Your task to perform on an android device: View the shopping cart on target.com. Add "panasonic triple a" to the cart on target.com, then select checkout. Image 0: 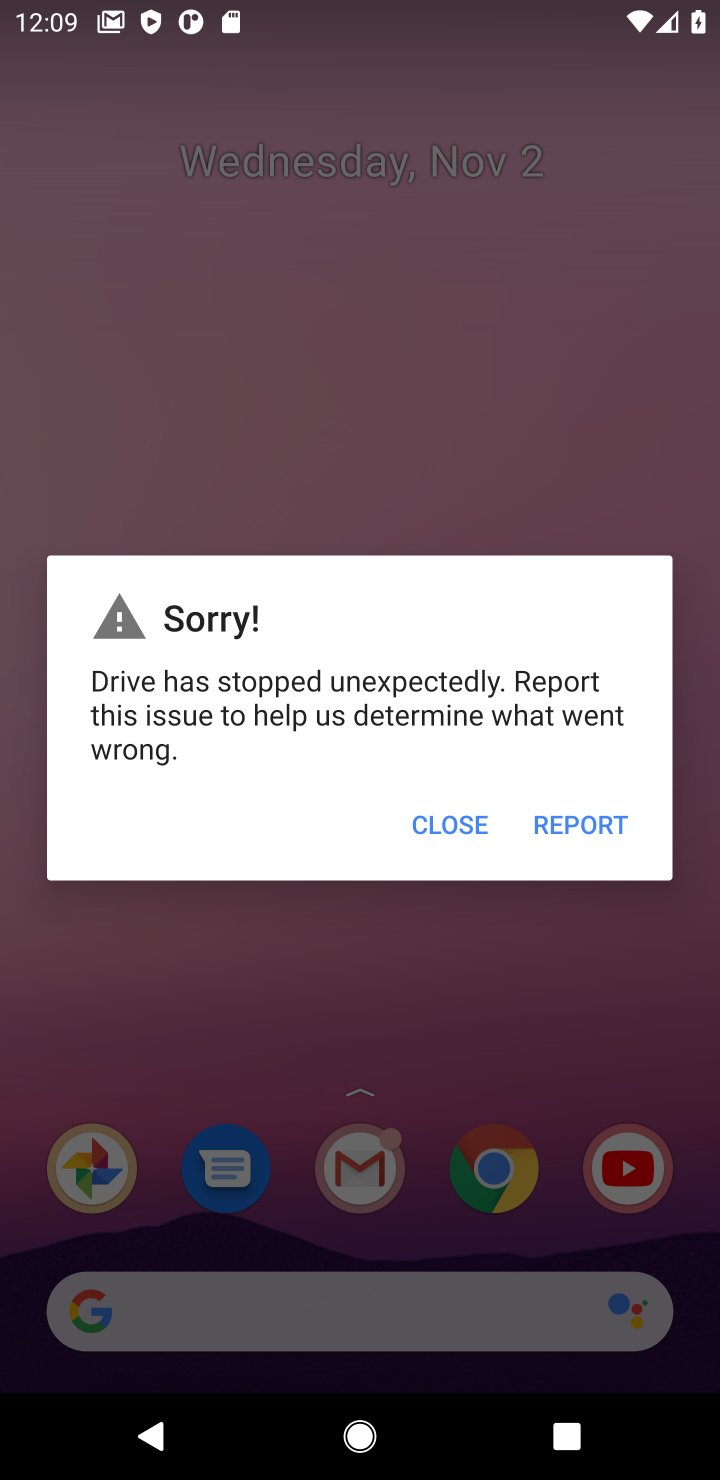
Step 0: press home button
Your task to perform on an android device: View the shopping cart on target.com. Add "panasonic triple a" to the cart on target.com, then select checkout. Image 1: 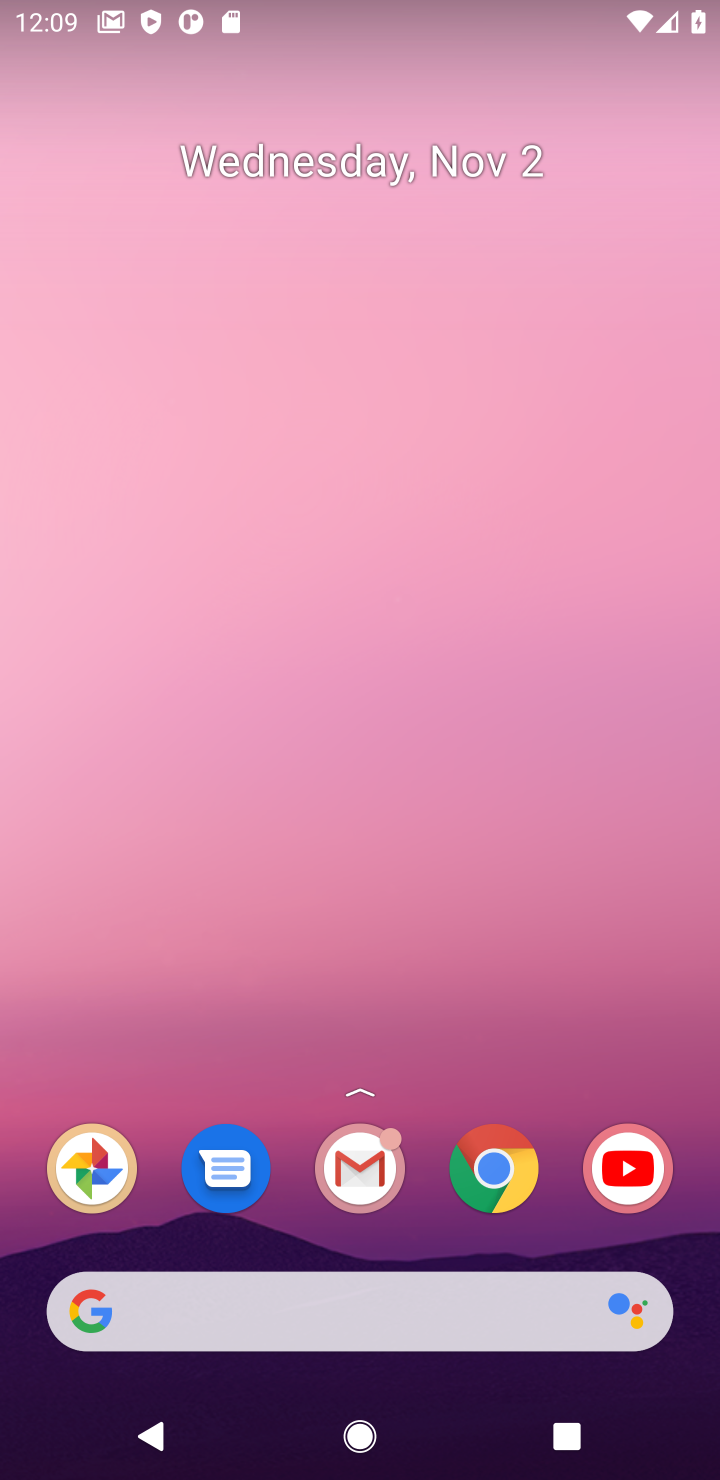
Step 1: click (505, 1187)
Your task to perform on an android device: View the shopping cart on target.com. Add "panasonic triple a" to the cart on target.com, then select checkout. Image 2: 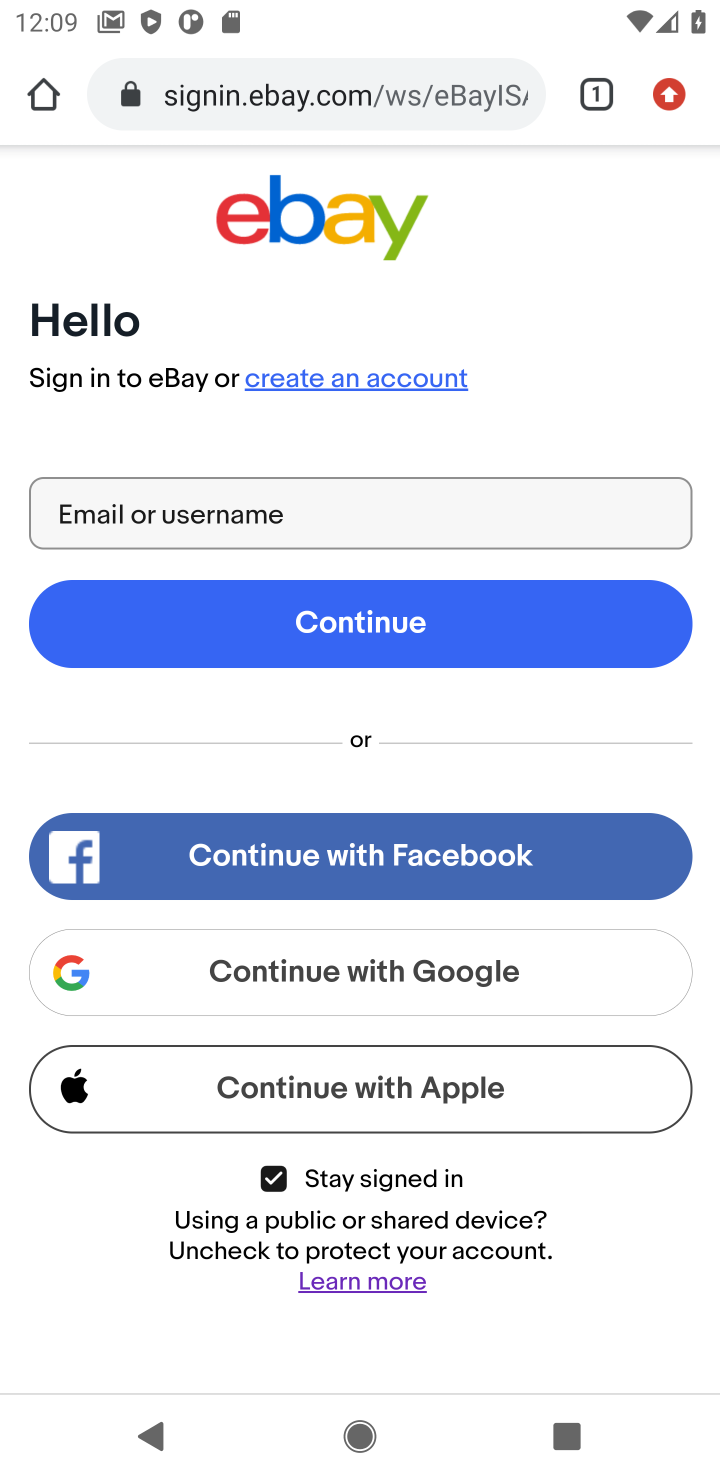
Step 2: click (322, 90)
Your task to perform on an android device: View the shopping cart on target.com. Add "panasonic triple a" to the cart on target.com, then select checkout. Image 3: 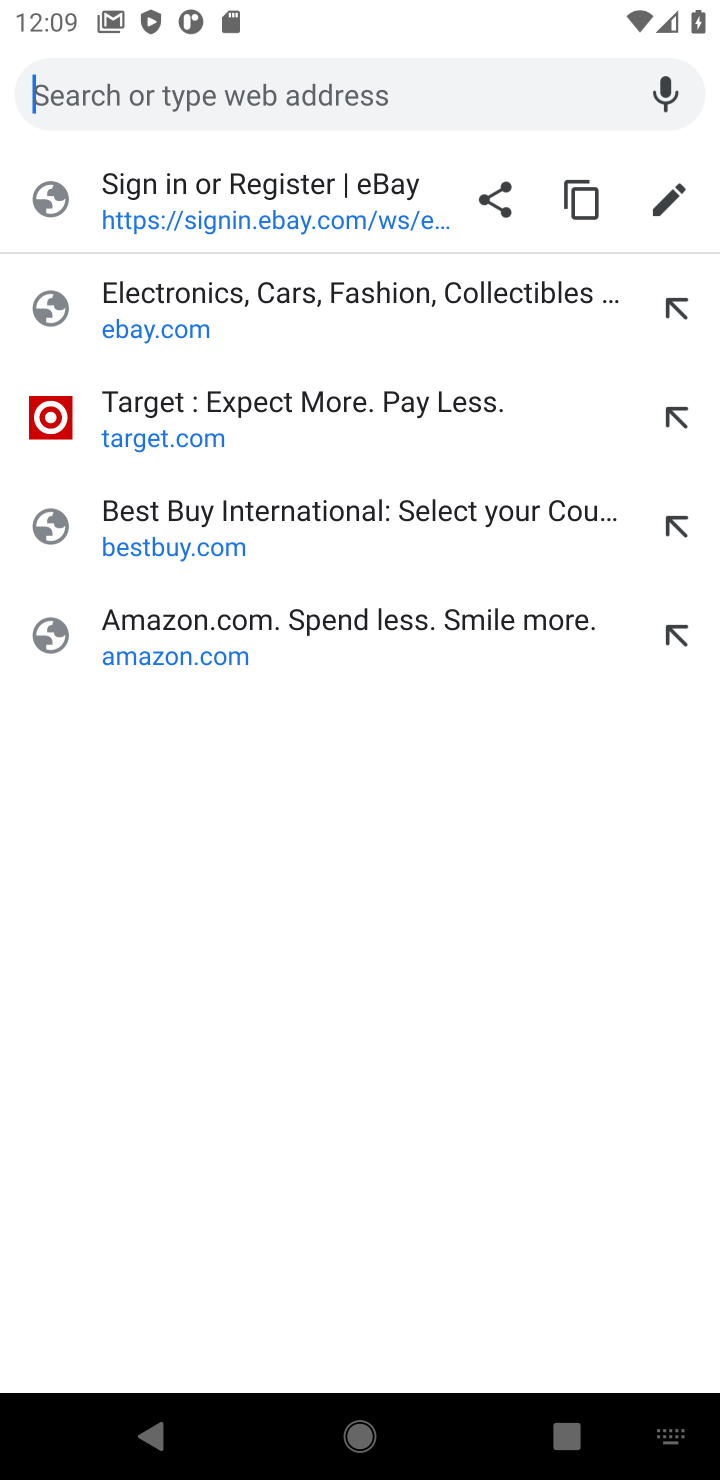
Step 3: type "target.com"
Your task to perform on an android device: View the shopping cart on target.com. Add "panasonic triple a" to the cart on target.com, then select checkout. Image 4: 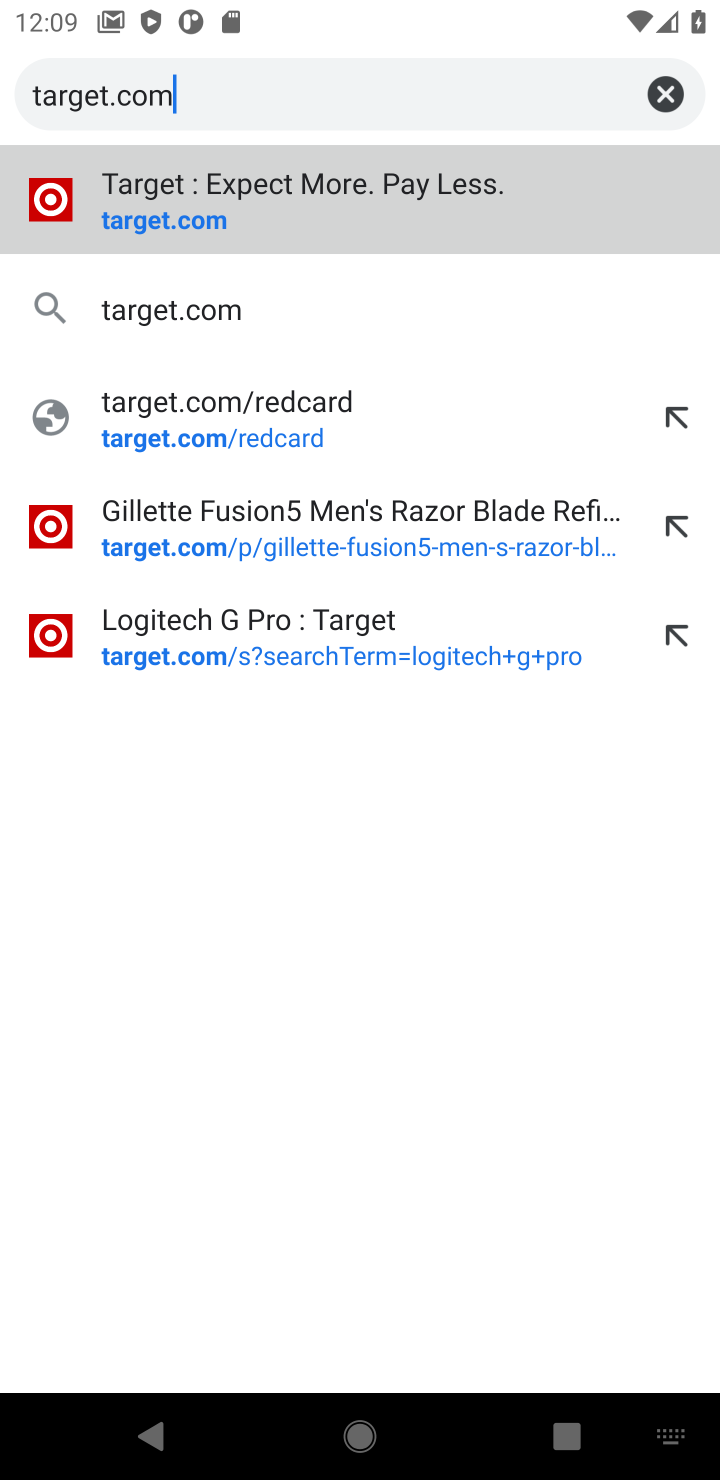
Step 4: click (247, 306)
Your task to perform on an android device: View the shopping cart on target.com. Add "panasonic triple a" to the cart on target.com, then select checkout. Image 5: 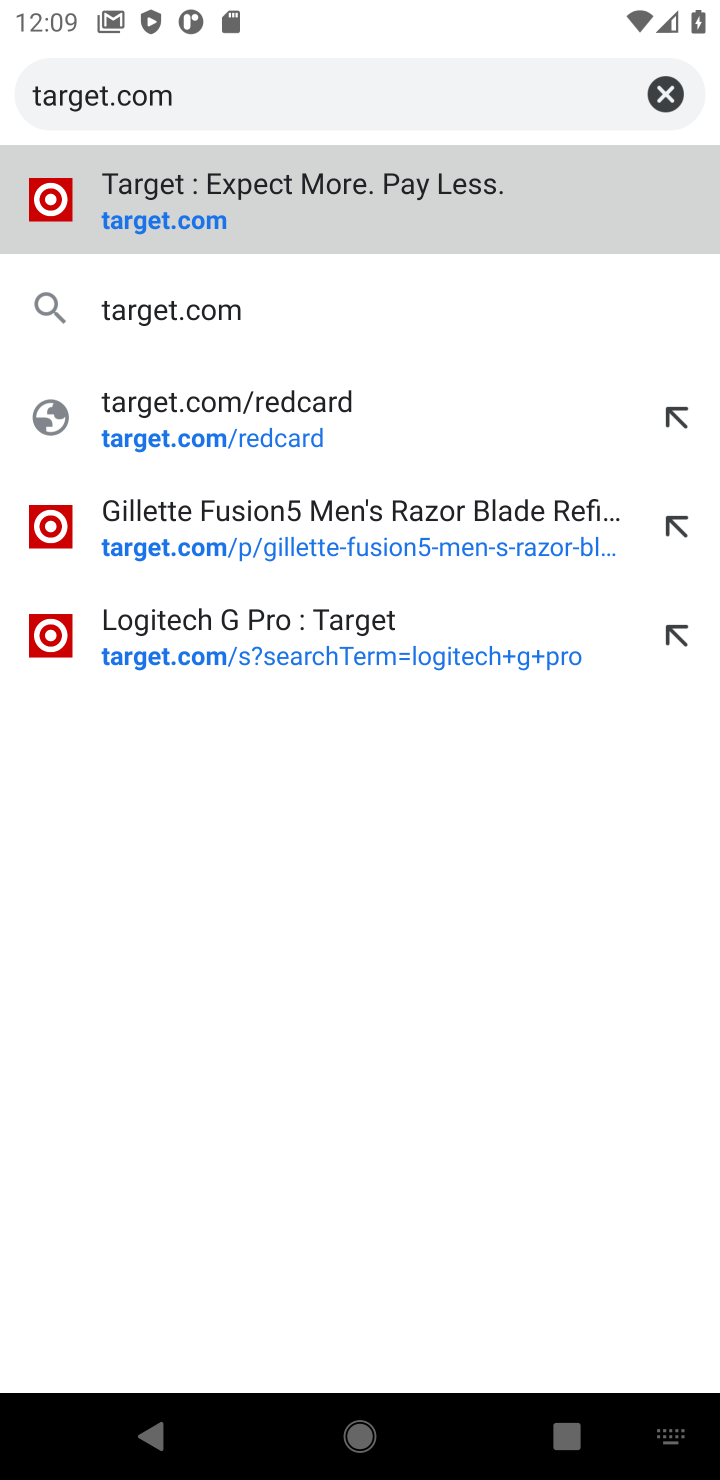
Step 5: click (196, 310)
Your task to perform on an android device: View the shopping cart on target.com. Add "panasonic triple a" to the cart on target.com, then select checkout. Image 6: 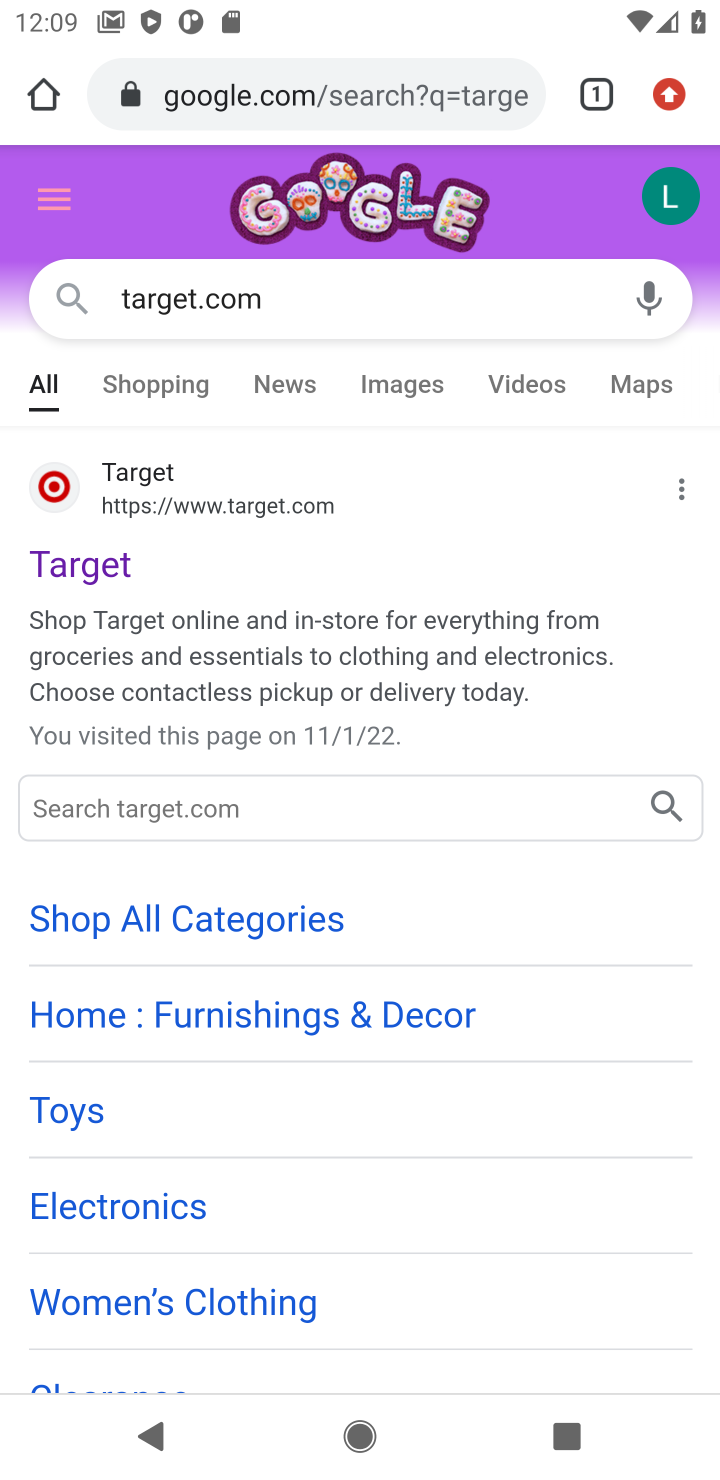
Step 6: click (178, 489)
Your task to perform on an android device: View the shopping cart on target.com. Add "panasonic triple a" to the cart on target.com, then select checkout. Image 7: 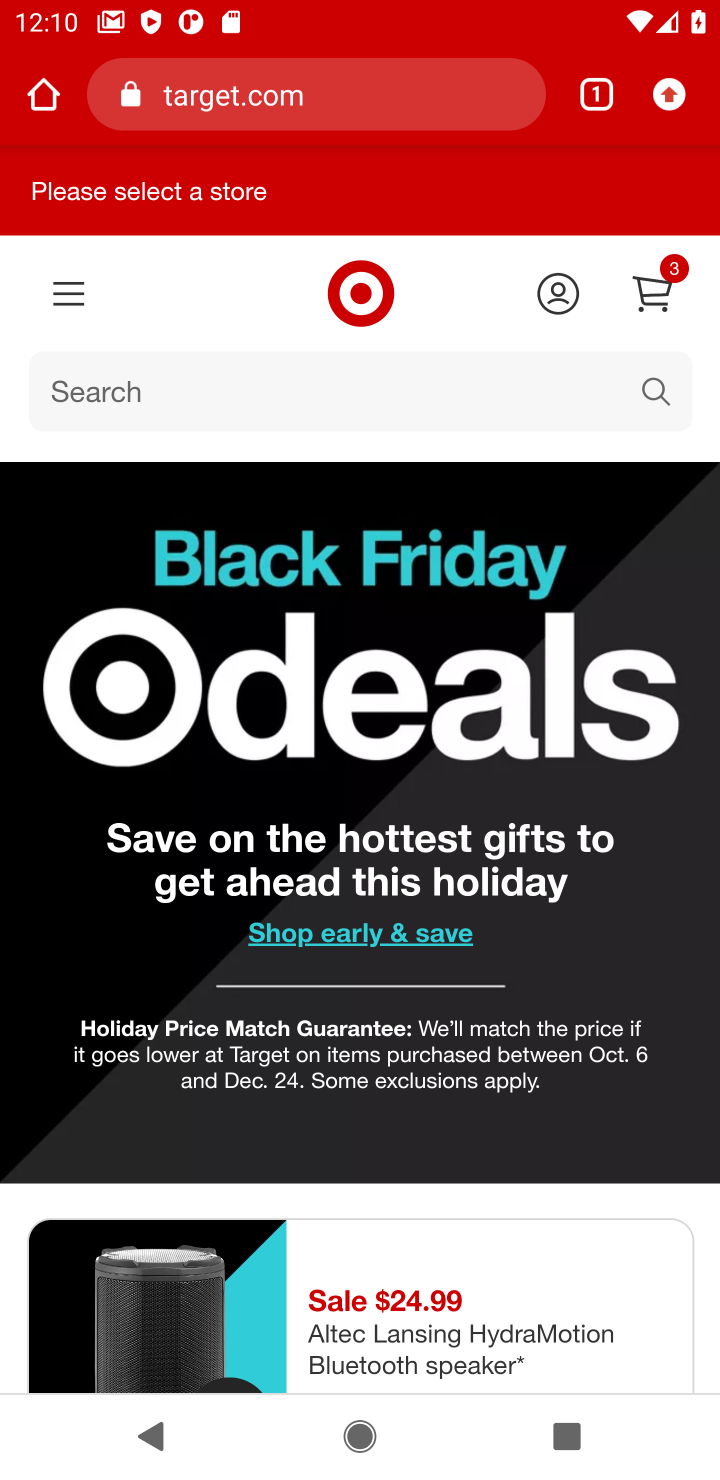
Step 7: click (245, 378)
Your task to perform on an android device: View the shopping cart on target.com. Add "panasonic triple a" to the cart on target.com, then select checkout. Image 8: 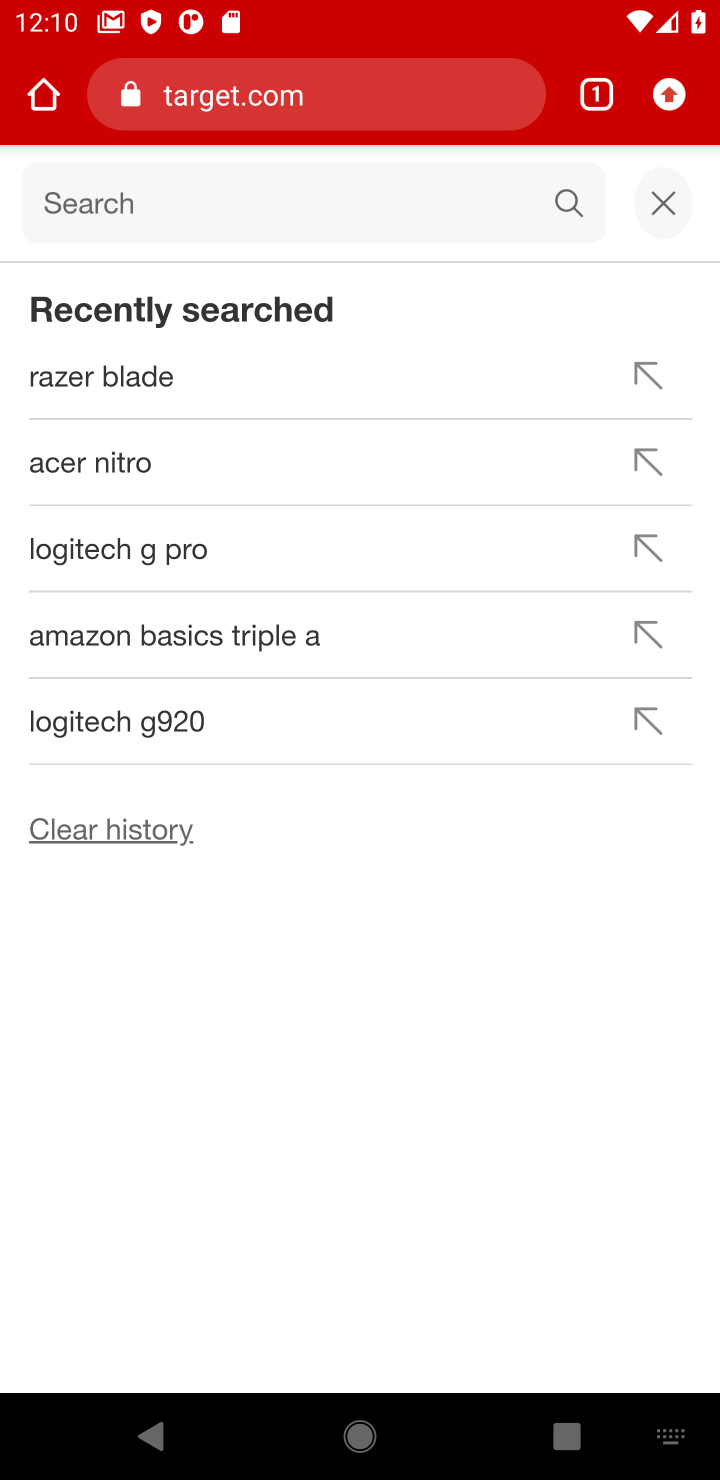
Step 8: type "panasonic triple a"
Your task to perform on an android device: View the shopping cart on target.com. Add "panasonic triple a" to the cart on target.com, then select checkout. Image 9: 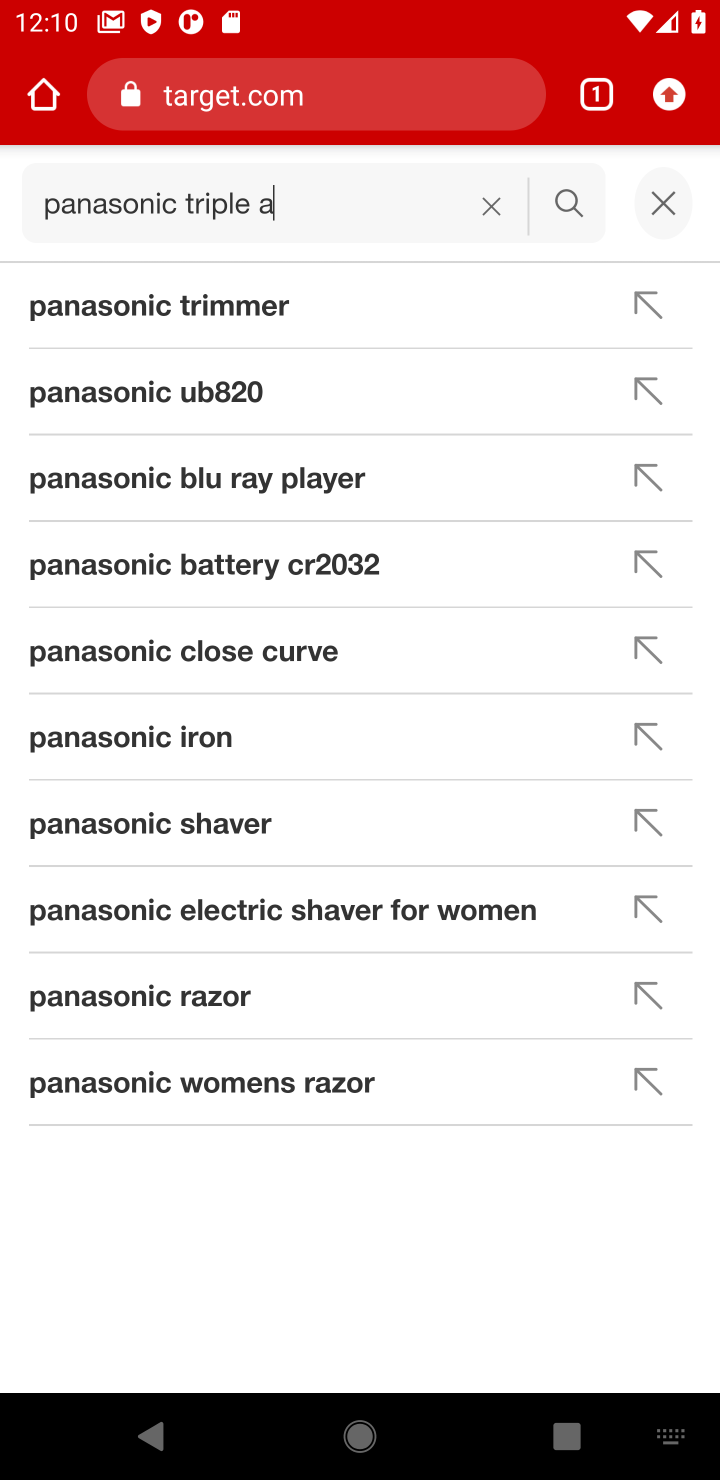
Step 9: click (382, 203)
Your task to perform on an android device: View the shopping cart on target.com. Add "panasonic triple a" to the cart on target.com, then select checkout. Image 10: 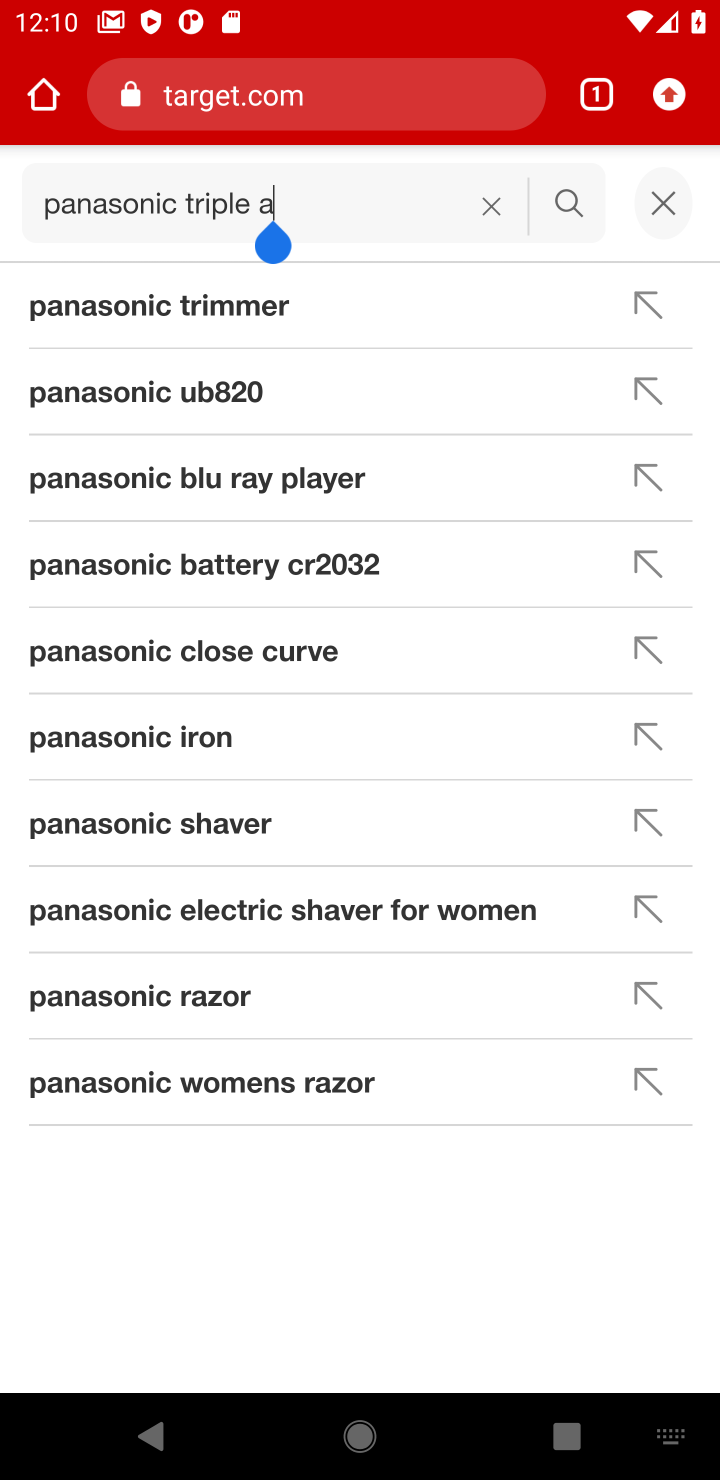
Step 10: click (487, 206)
Your task to perform on an android device: View the shopping cart on target.com. Add "panasonic triple a" to the cart on target.com, then select checkout. Image 11: 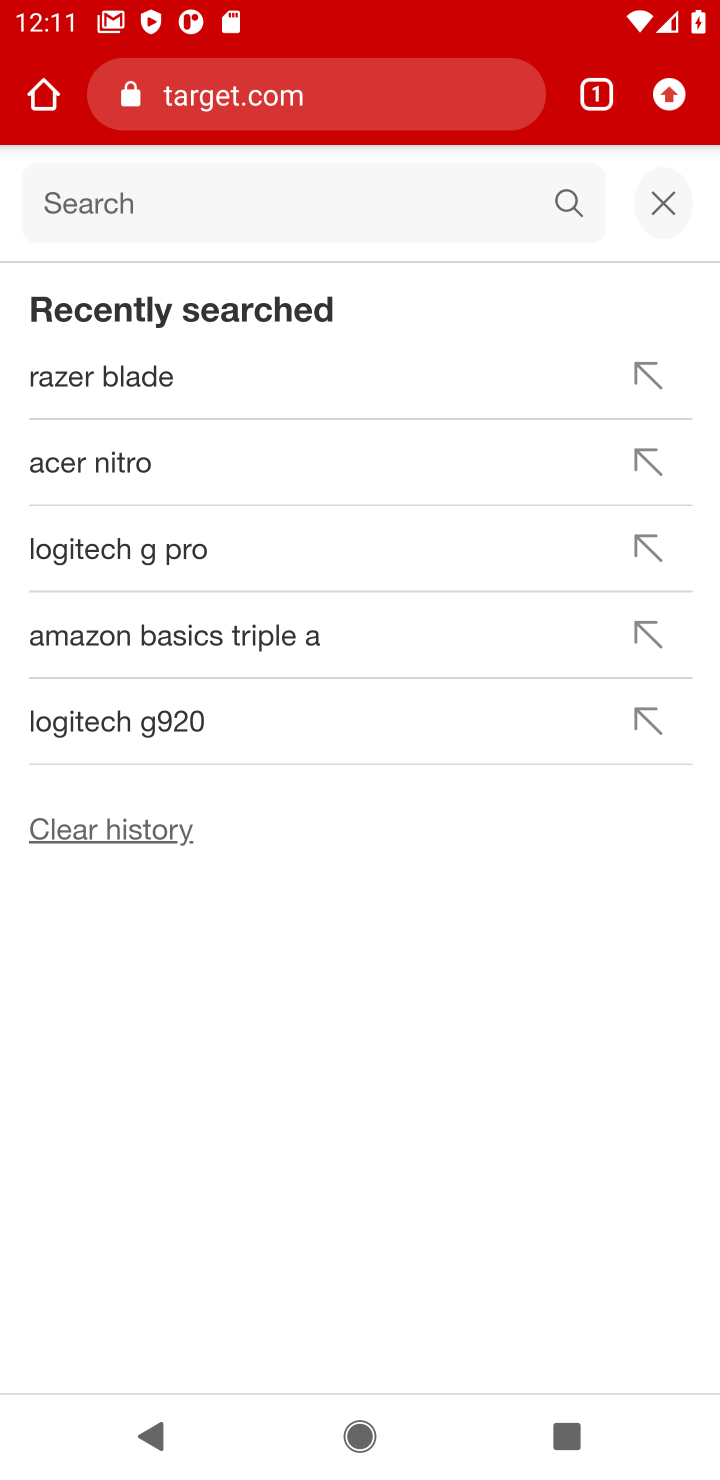
Step 11: type "panasonic triple "
Your task to perform on an android device: View the shopping cart on target.com. Add "panasonic triple a" to the cart on target.com, then select checkout. Image 12: 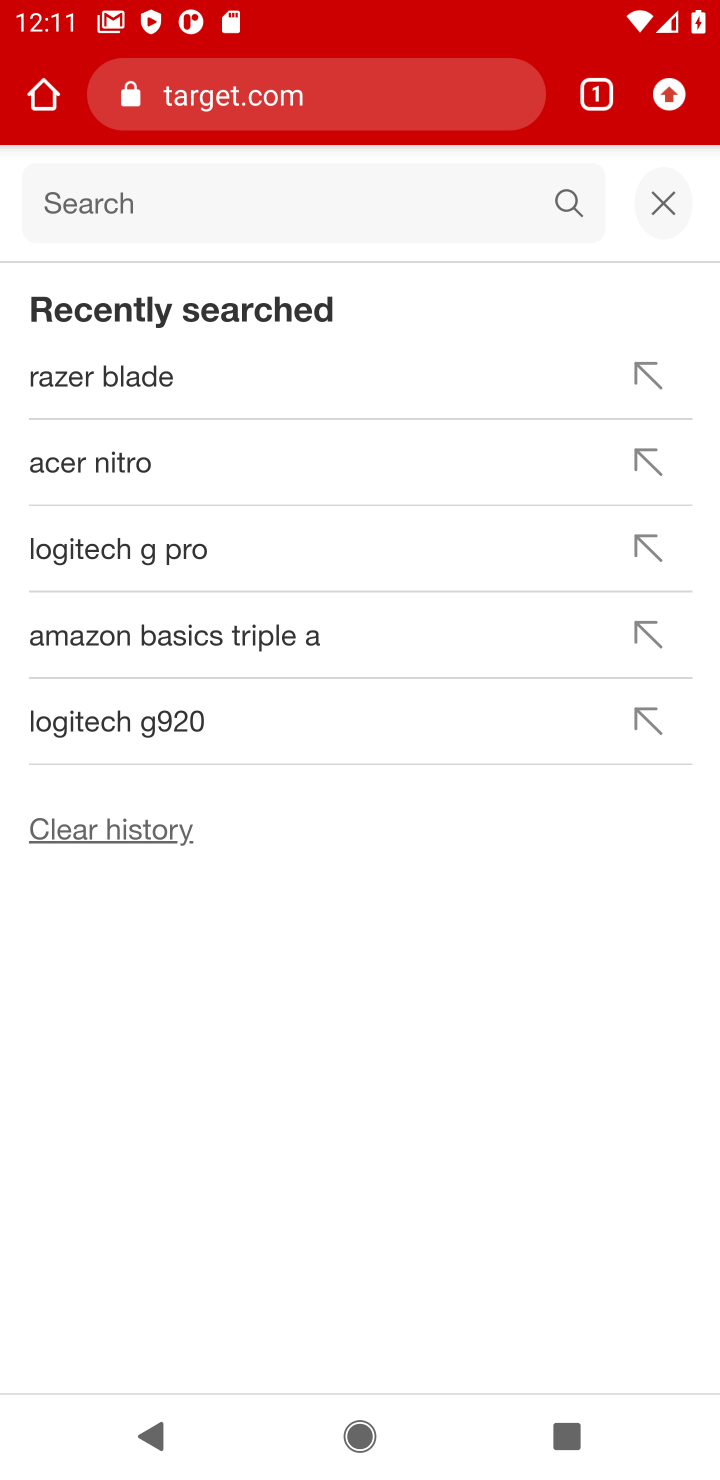
Step 12: click (336, 200)
Your task to perform on an android device: View the shopping cart on target.com. Add "panasonic triple a" to the cart on target.com, then select checkout. Image 13: 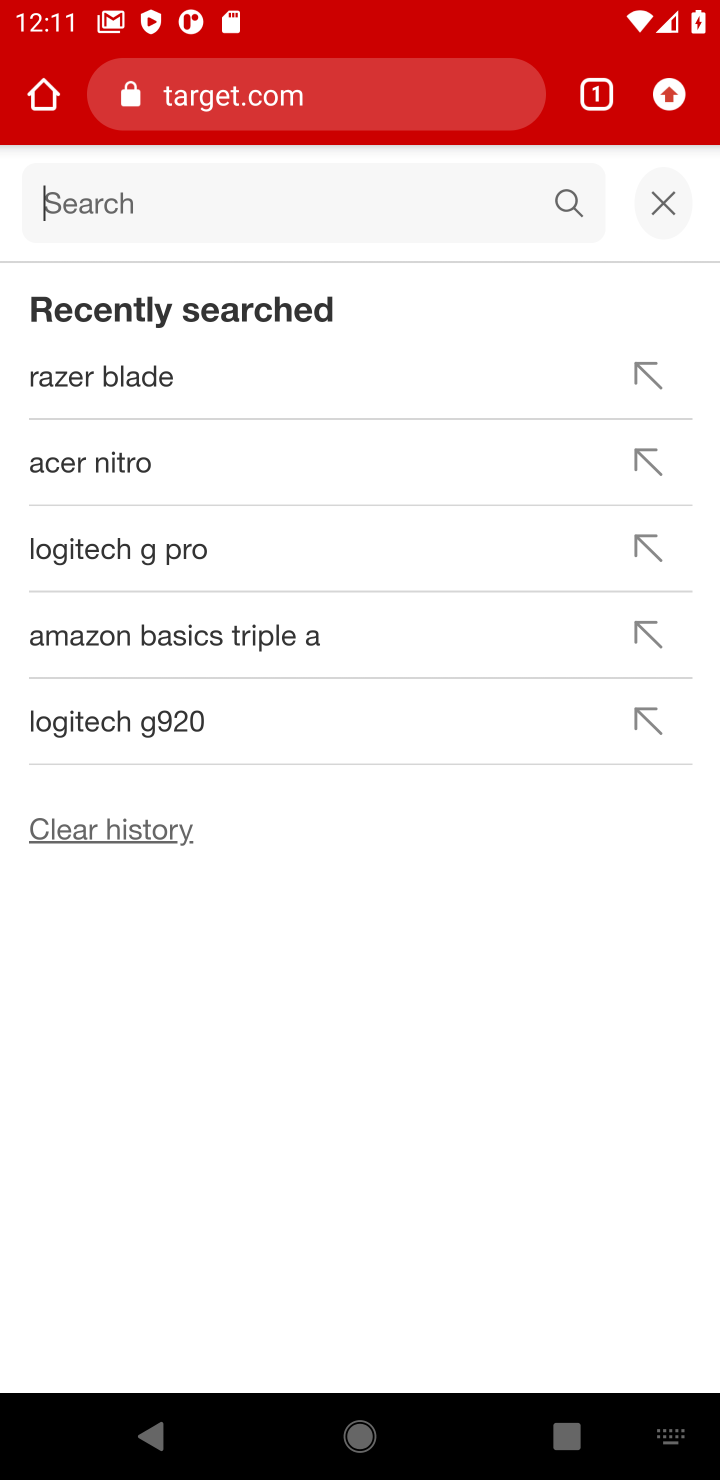
Step 13: type "panasonic triple"
Your task to perform on an android device: View the shopping cart on target.com. Add "panasonic triple a" to the cart on target.com, then select checkout. Image 14: 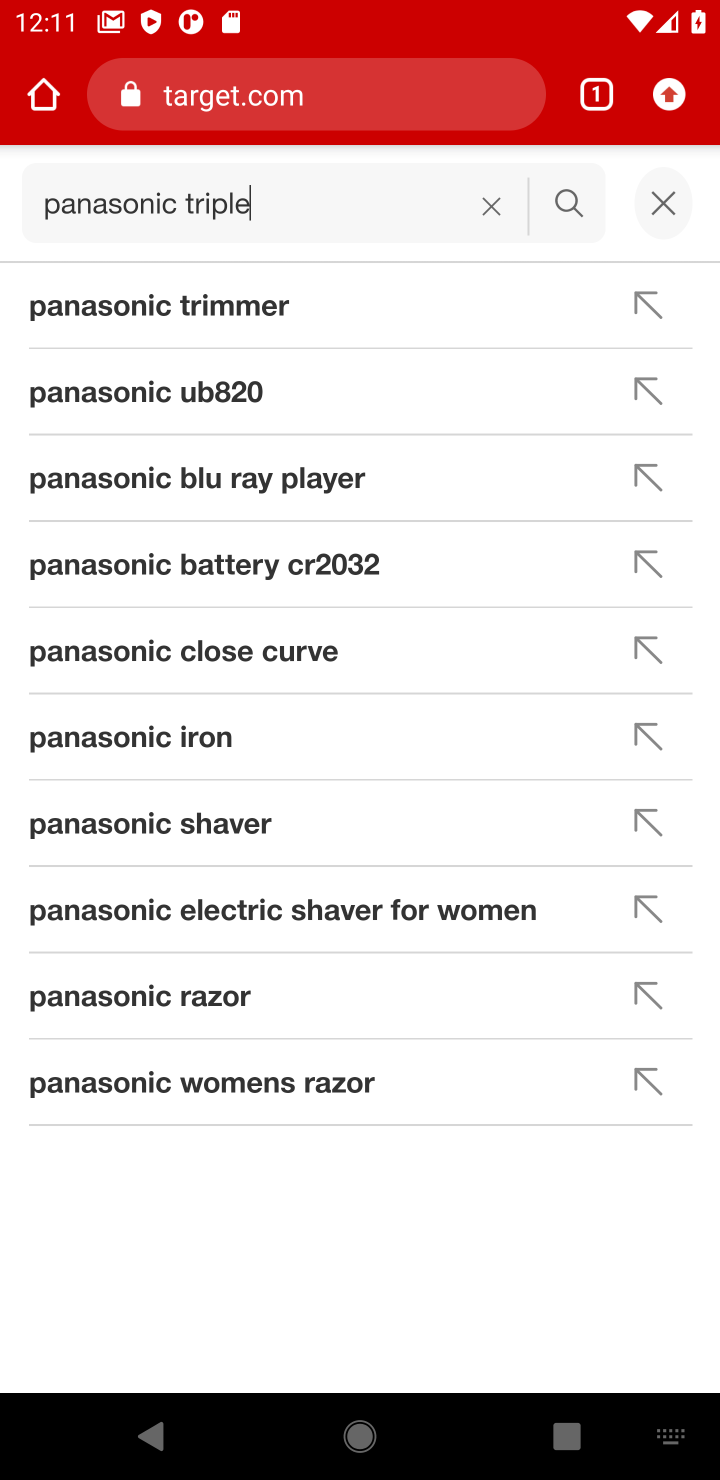
Step 14: click (562, 1222)
Your task to perform on an android device: View the shopping cart on target.com. Add "panasonic triple a" to the cart on target.com, then select checkout. Image 15: 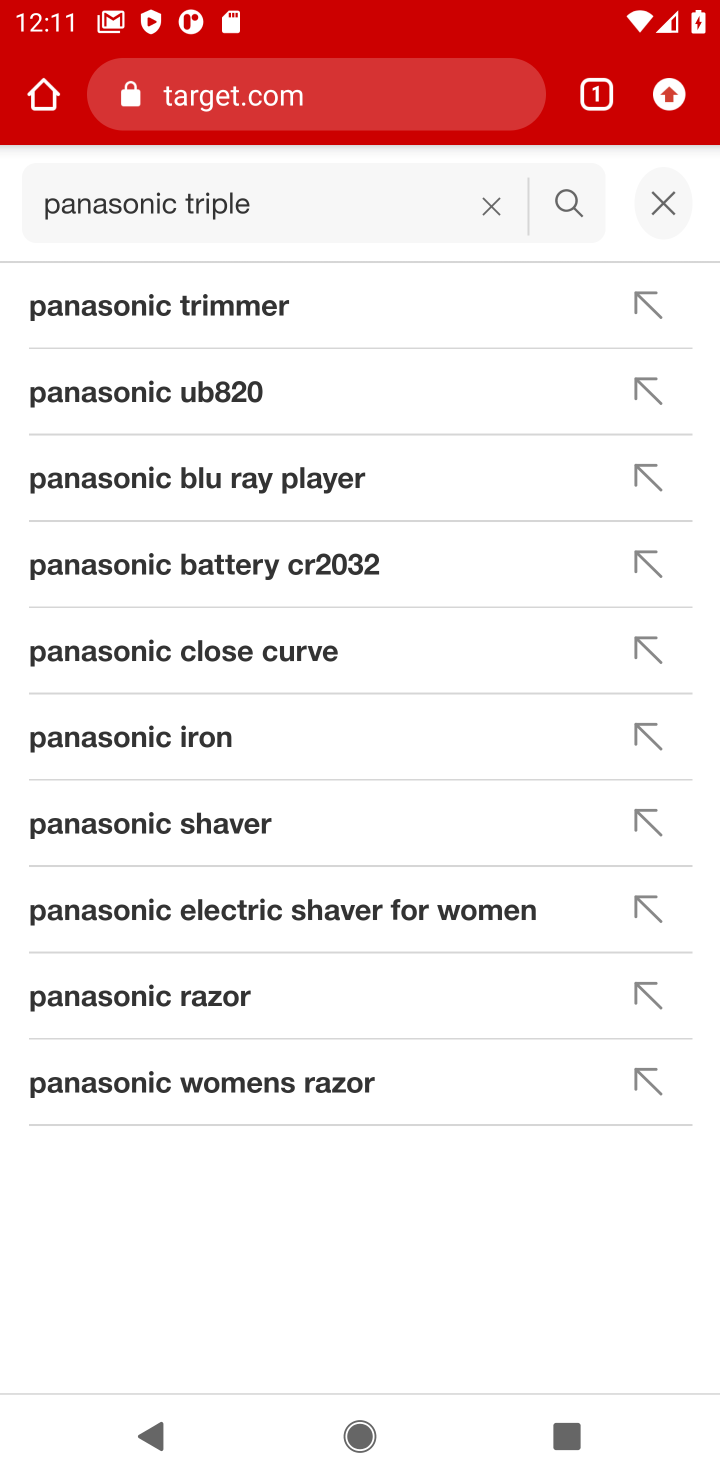
Step 15: click (431, 211)
Your task to perform on an android device: View the shopping cart on target.com. Add "panasonic triple a" to the cart on target.com, then select checkout. Image 16: 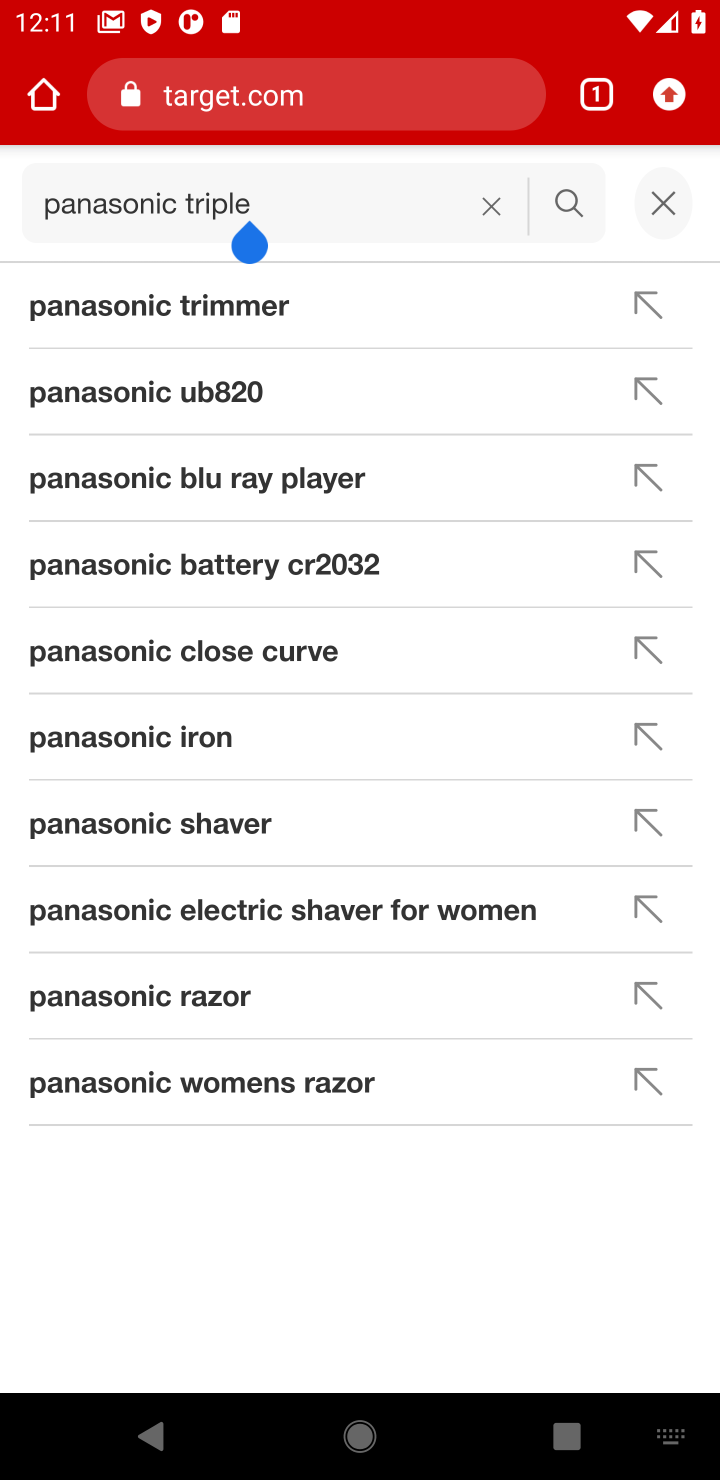
Step 16: click (531, 1272)
Your task to perform on an android device: View the shopping cart on target.com. Add "panasonic triple a" to the cart on target.com, then select checkout. Image 17: 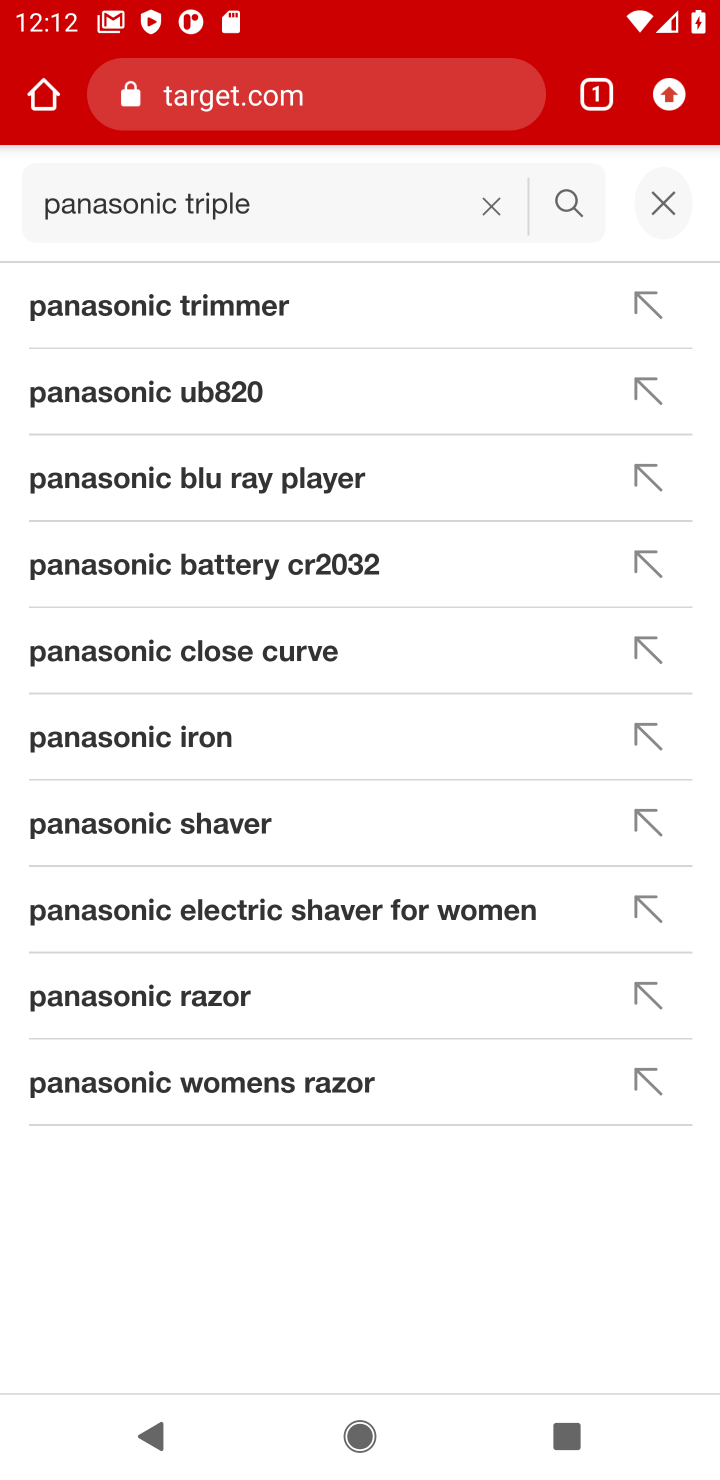
Step 17: task complete